Your task to perform on an android device: When is my next meeting? Image 0: 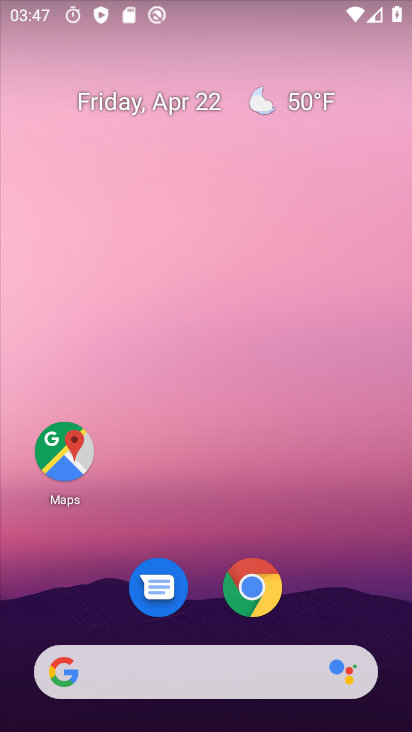
Step 0: drag from (390, 629) to (364, 1)
Your task to perform on an android device: When is my next meeting? Image 1: 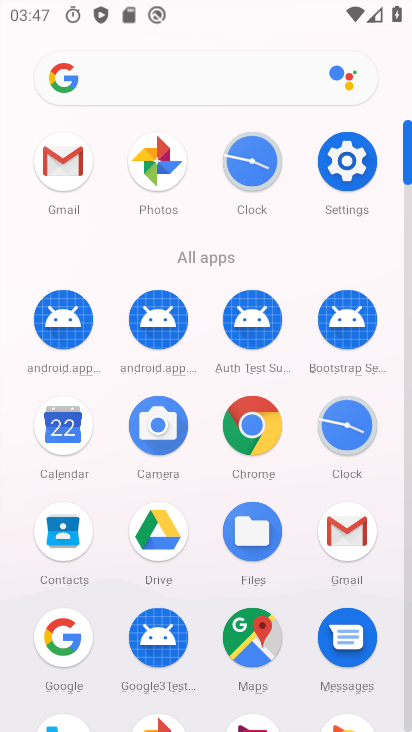
Step 1: click (63, 430)
Your task to perform on an android device: When is my next meeting? Image 2: 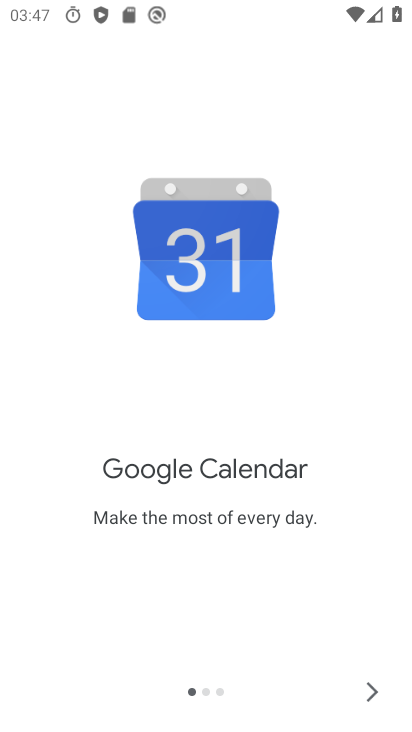
Step 2: click (365, 700)
Your task to perform on an android device: When is my next meeting? Image 3: 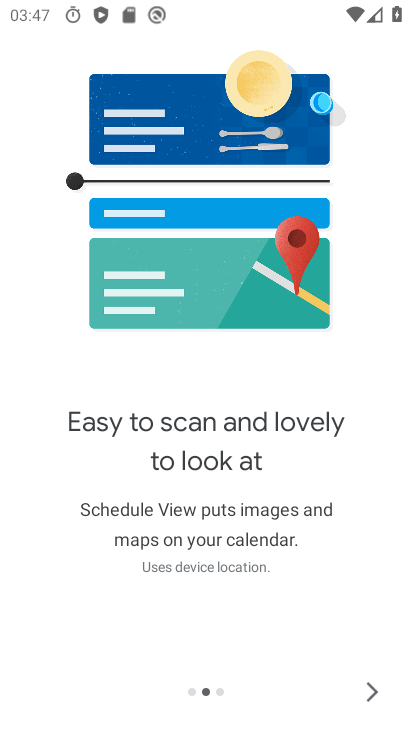
Step 3: click (365, 700)
Your task to perform on an android device: When is my next meeting? Image 4: 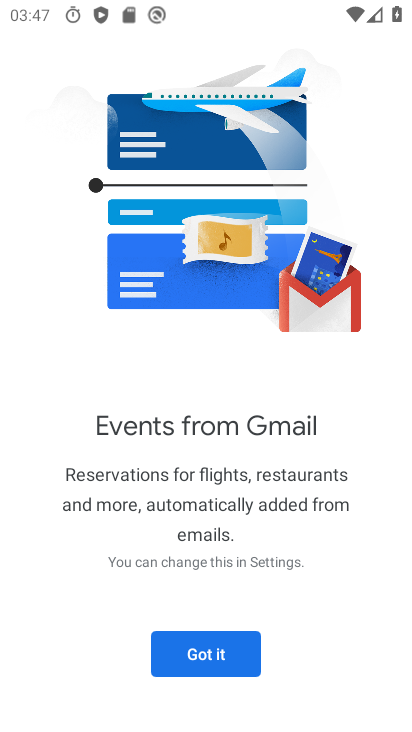
Step 4: click (193, 664)
Your task to perform on an android device: When is my next meeting? Image 5: 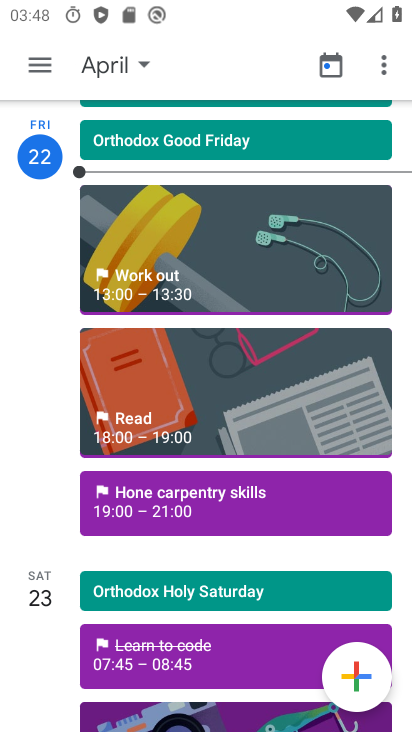
Step 5: click (173, 518)
Your task to perform on an android device: When is my next meeting? Image 6: 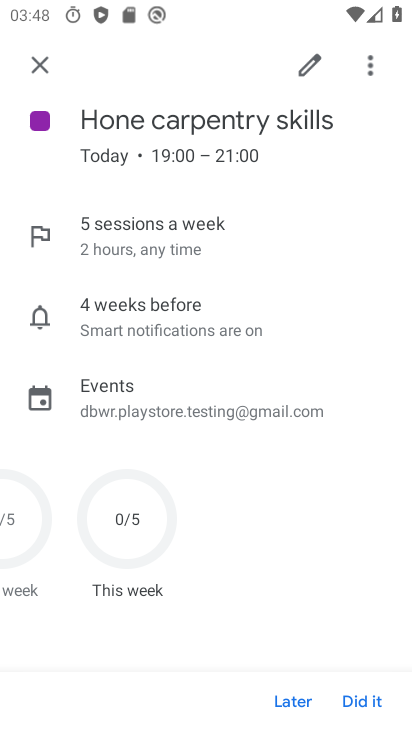
Step 6: task complete